Your task to perform on an android device: open a new tab in the chrome app Image 0: 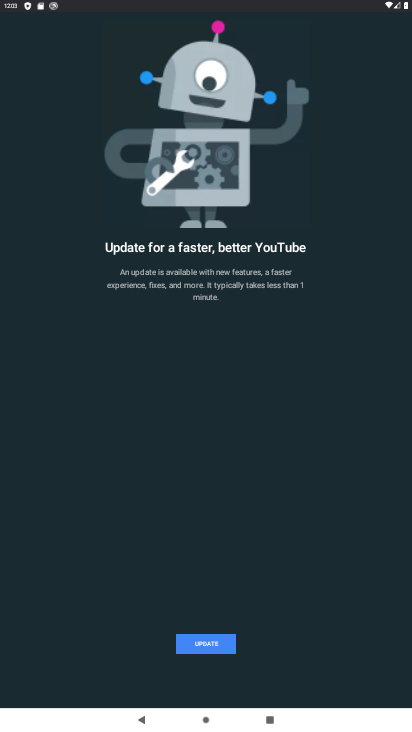
Step 0: press back button
Your task to perform on an android device: open a new tab in the chrome app Image 1: 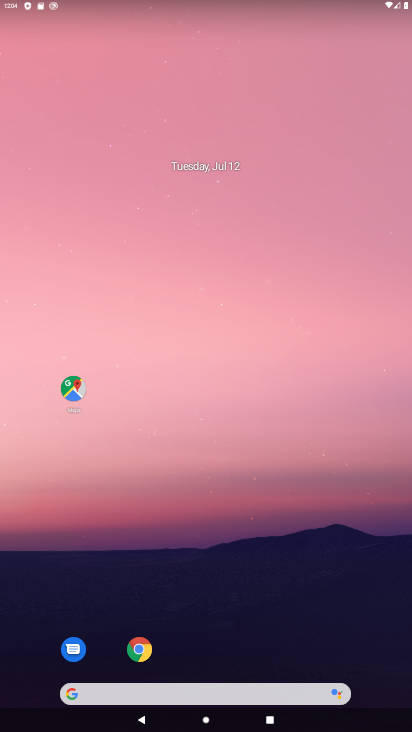
Step 1: drag from (288, 626) to (367, 100)
Your task to perform on an android device: open a new tab in the chrome app Image 2: 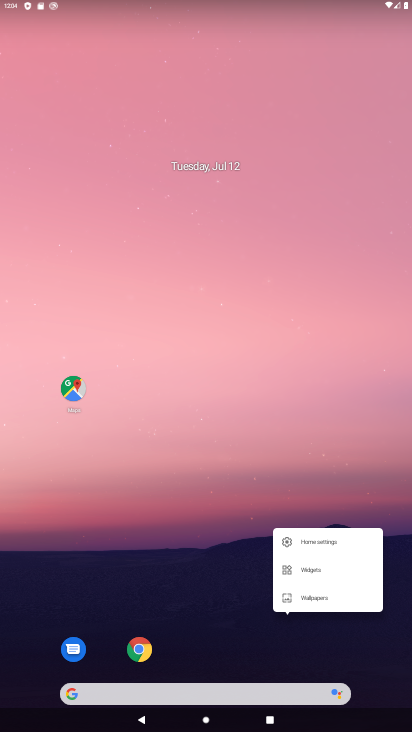
Step 2: click (297, 298)
Your task to perform on an android device: open a new tab in the chrome app Image 3: 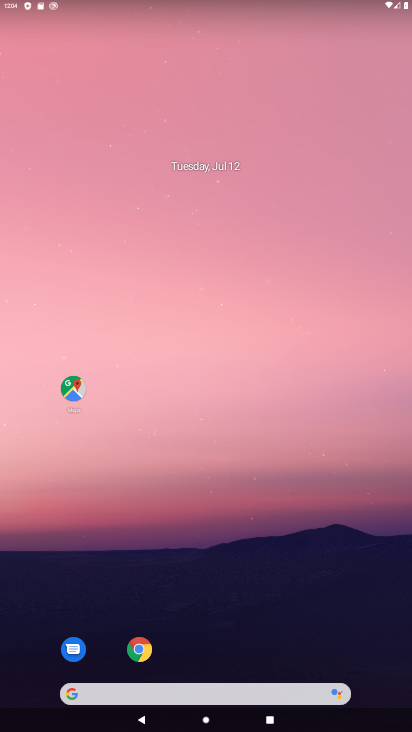
Step 3: drag from (249, 606) to (253, 31)
Your task to perform on an android device: open a new tab in the chrome app Image 4: 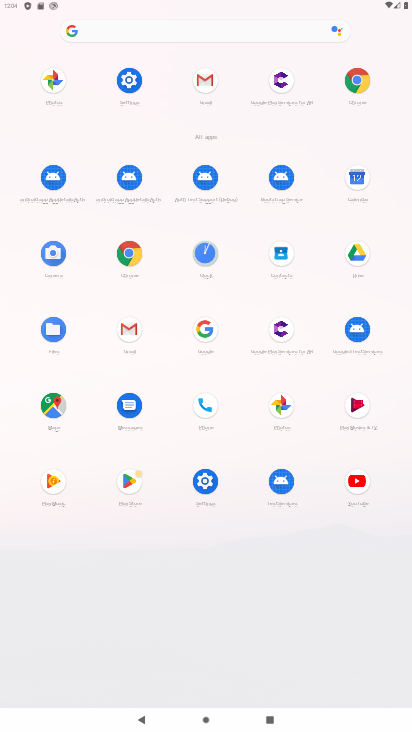
Step 4: click (364, 109)
Your task to perform on an android device: open a new tab in the chrome app Image 5: 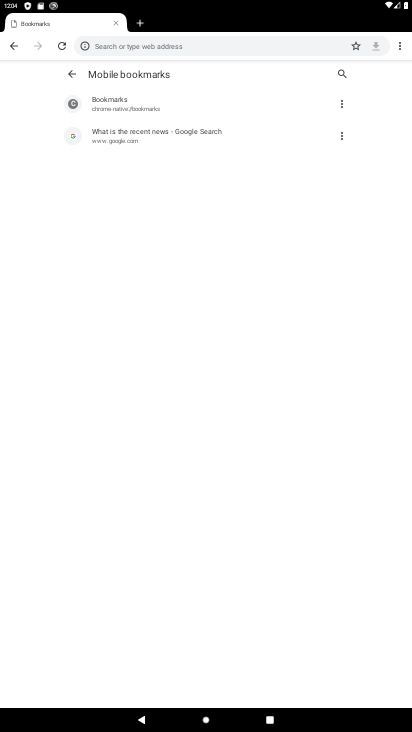
Step 5: click (401, 53)
Your task to perform on an android device: open a new tab in the chrome app Image 6: 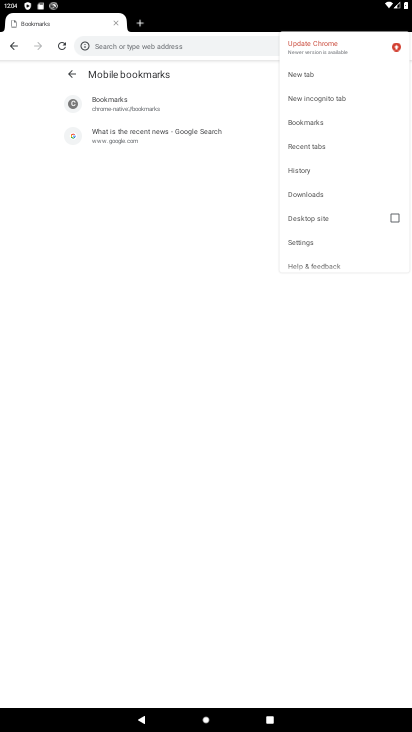
Step 6: click (312, 81)
Your task to perform on an android device: open a new tab in the chrome app Image 7: 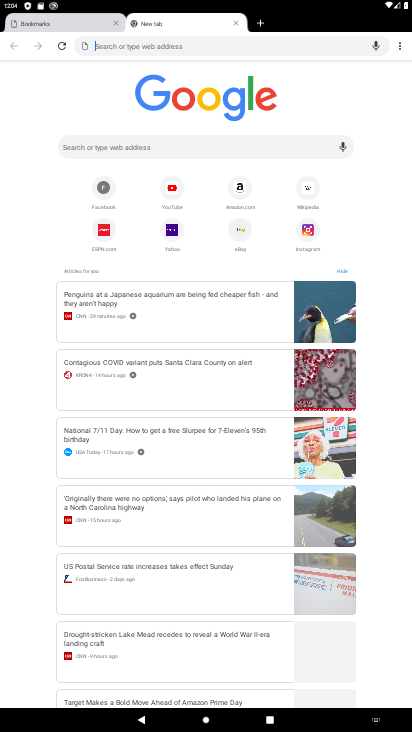
Step 7: task complete